Your task to perform on an android device: turn on showing notifications on the lock screen Image 0: 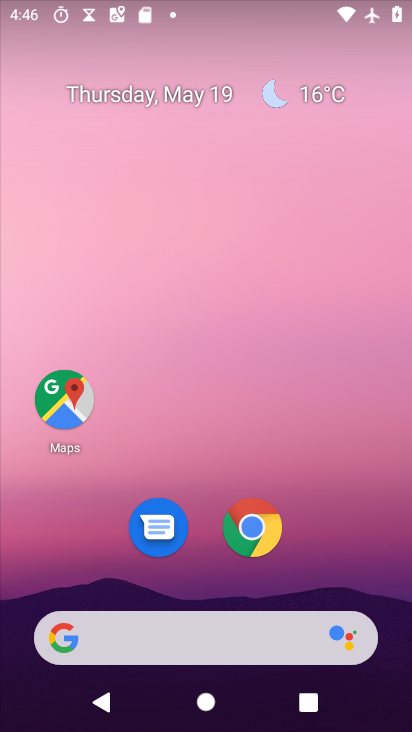
Step 0: drag from (336, 568) to (194, 18)
Your task to perform on an android device: turn on showing notifications on the lock screen Image 1: 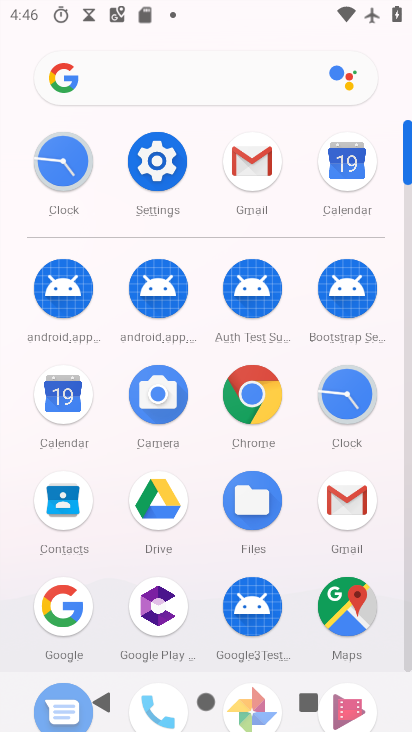
Step 1: click (150, 173)
Your task to perform on an android device: turn on showing notifications on the lock screen Image 2: 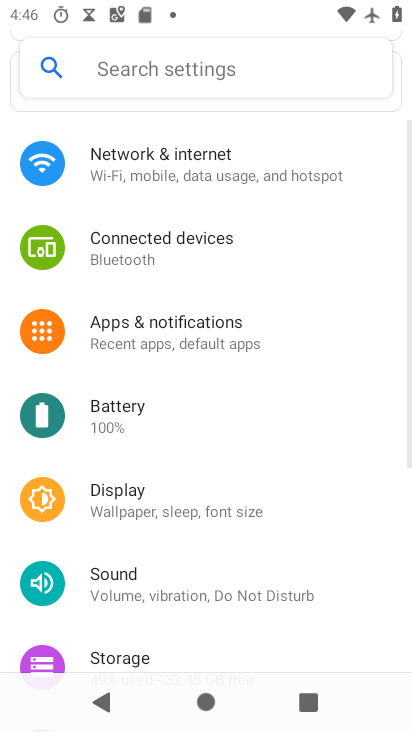
Step 2: click (199, 344)
Your task to perform on an android device: turn on showing notifications on the lock screen Image 3: 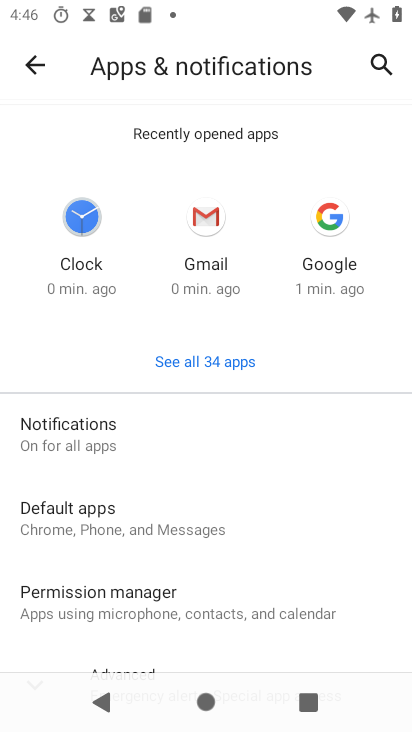
Step 3: click (122, 412)
Your task to perform on an android device: turn on showing notifications on the lock screen Image 4: 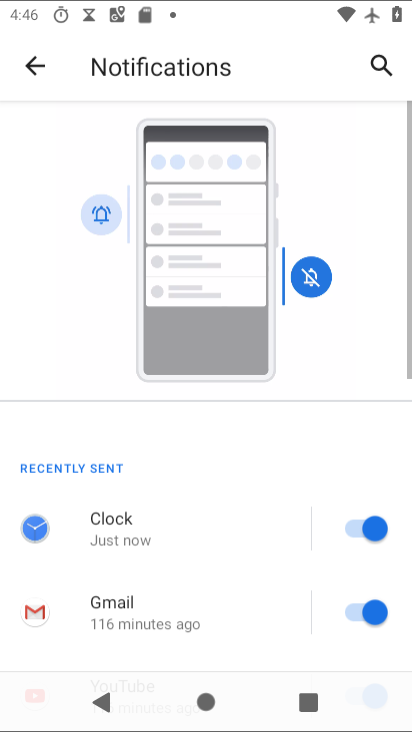
Step 4: drag from (271, 590) to (275, 224)
Your task to perform on an android device: turn on showing notifications on the lock screen Image 5: 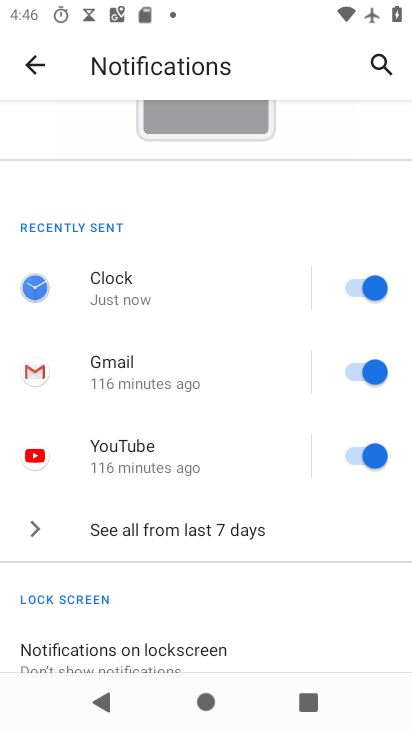
Step 5: click (193, 654)
Your task to perform on an android device: turn on showing notifications on the lock screen Image 6: 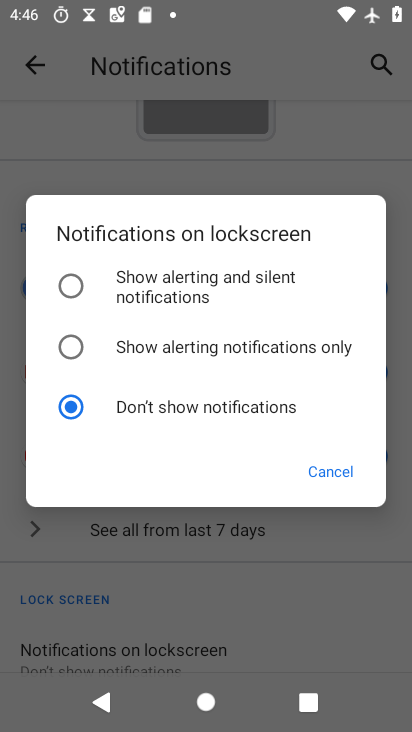
Step 6: click (180, 291)
Your task to perform on an android device: turn on showing notifications on the lock screen Image 7: 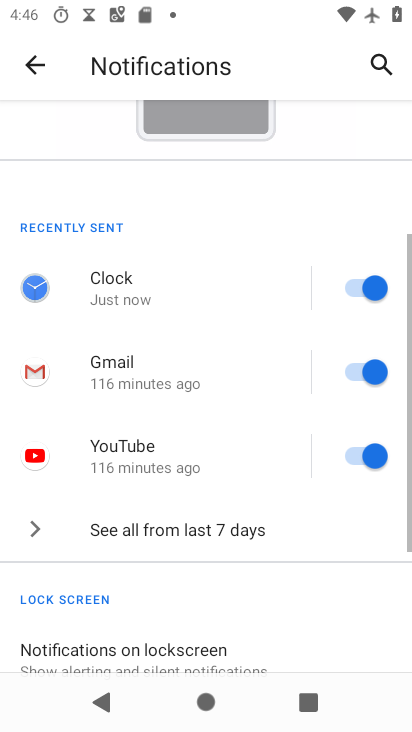
Step 7: task complete